Your task to perform on an android device: check battery use Image 0: 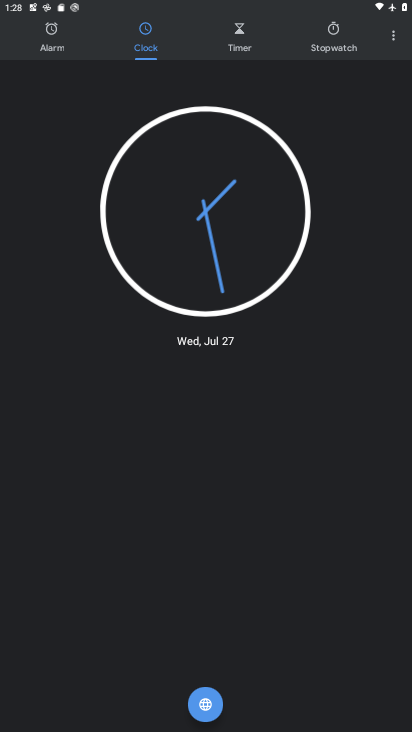
Step 0: press home button
Your task to perform on an android device: check battery use Image 1: 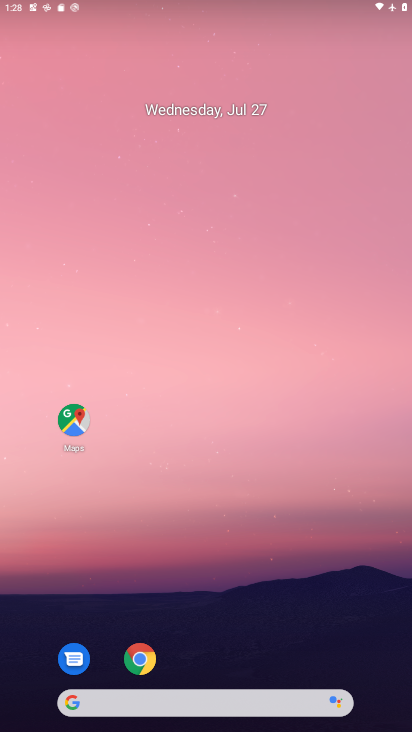
Step 1: drag from (90, 486) to (298, 187)
Your task to perform on an android device: check battery use Image 2: 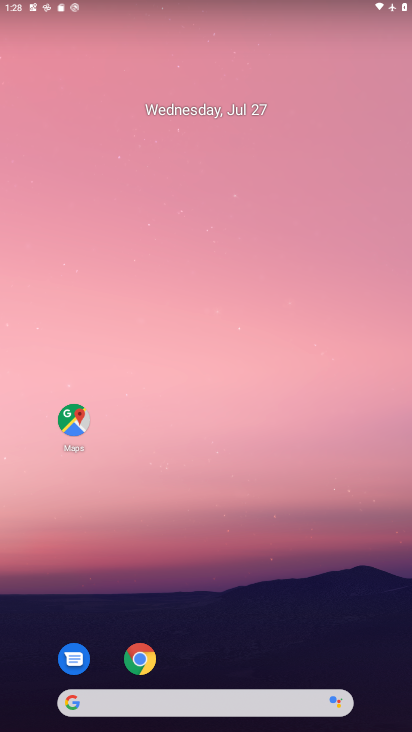
Step 2: drag from (17, 686) to (335, 97)
Your task to perform on an android device: check battery use Image 3: 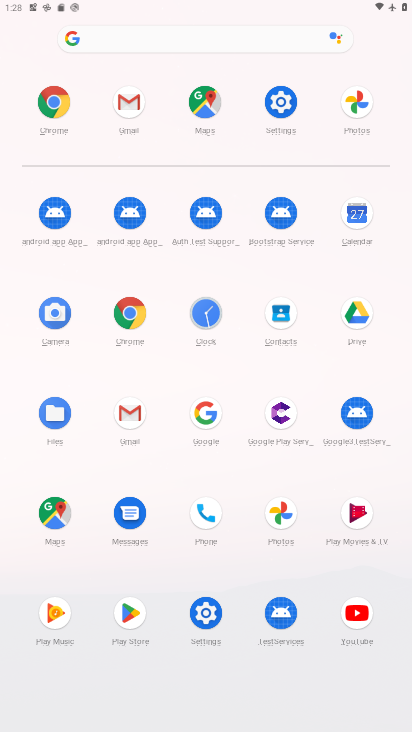
Step 3: click (264, 108)
Your task to perform on an android device: check battery use Image 4: 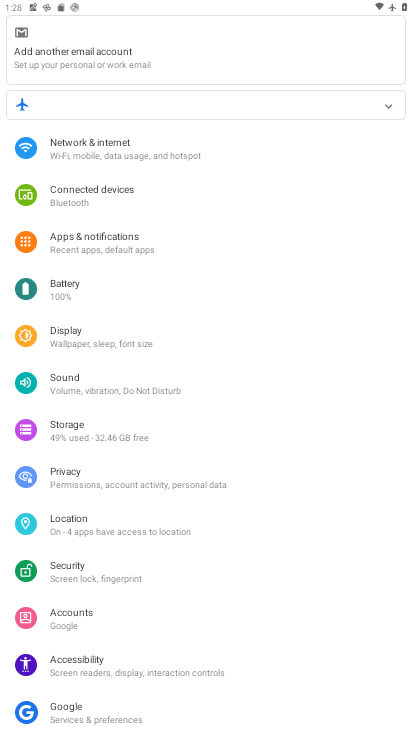
Step 4: click (89, 294)
Your task to perform on an android device: check battery use Image 5: 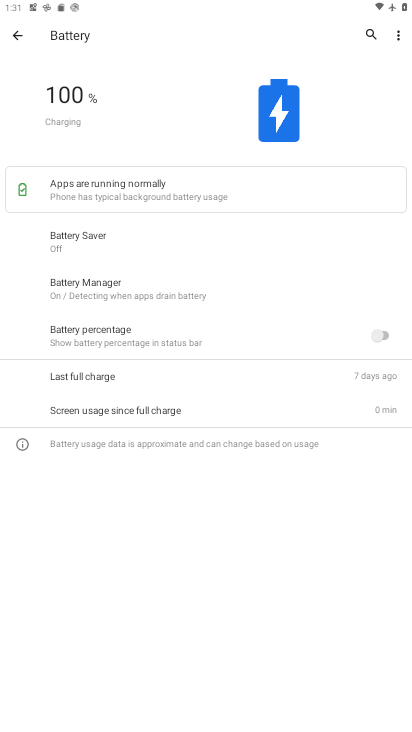
Step 5: task complete